Your task to perform on an android device: What is the news today? Image 0: 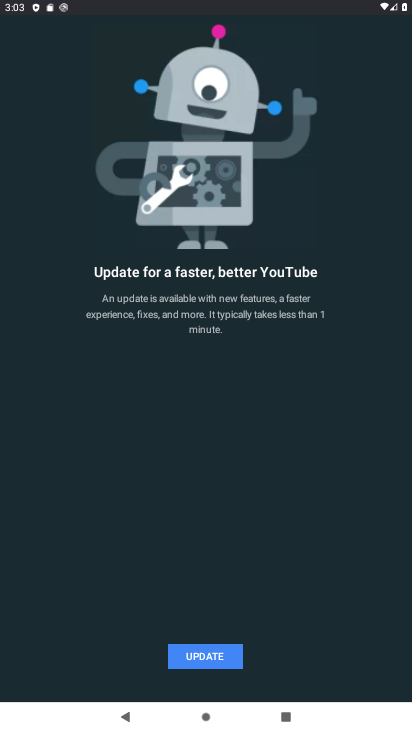
Step 0: press back button
Your task to perform on an android device: What is the news today? Image 1: 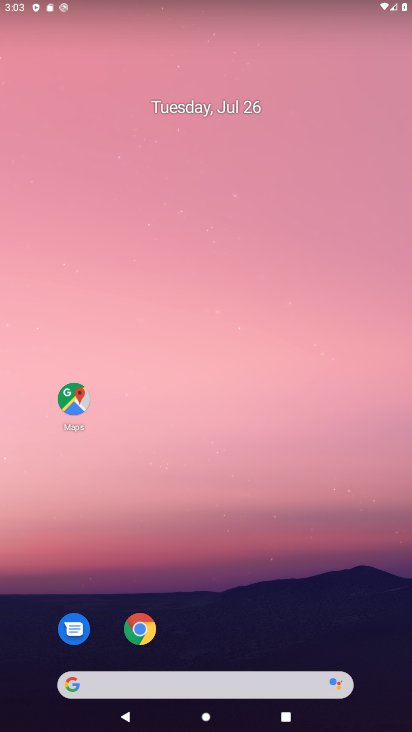
Step 1: drag from (278, 608) to (217, 193)
Your task to perform on an android device: What is the news today? Image 2: 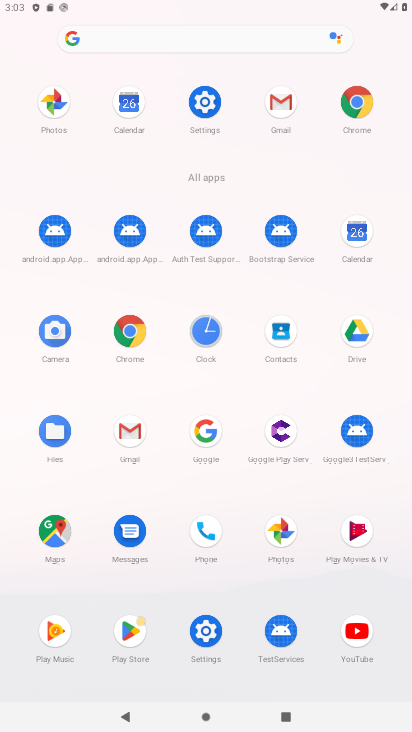
Step 2: click (344, 101)
Your task to perform on an android device: What is the news today? Image 3: 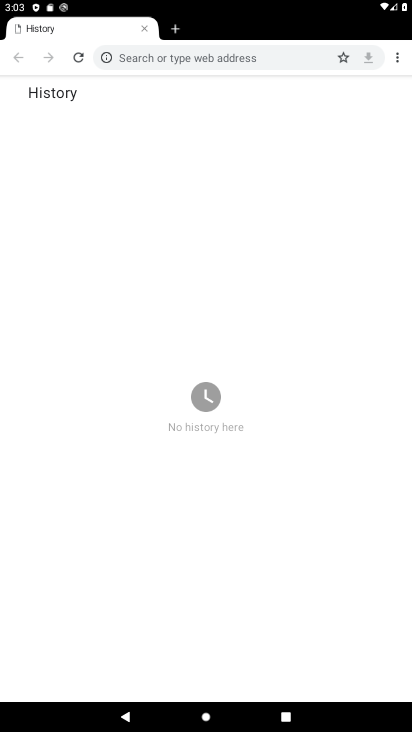
Step 3: click (197, 62)
Your task to perform on an android device: What is the news today? Image 4: 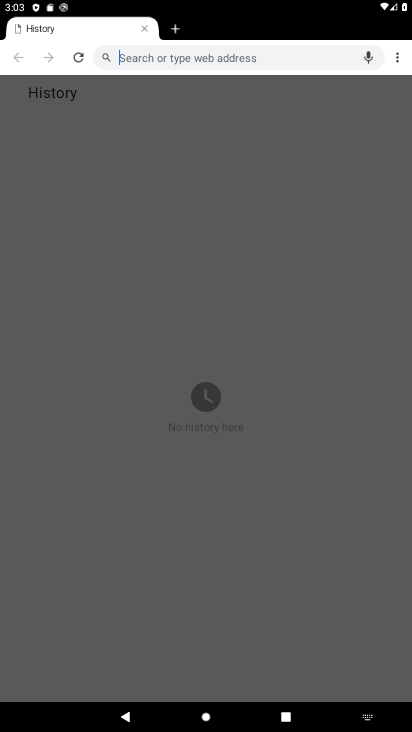
Step 4: type "What is the news today?"
Your task to perform on an android device: What is the news today? Image 5: 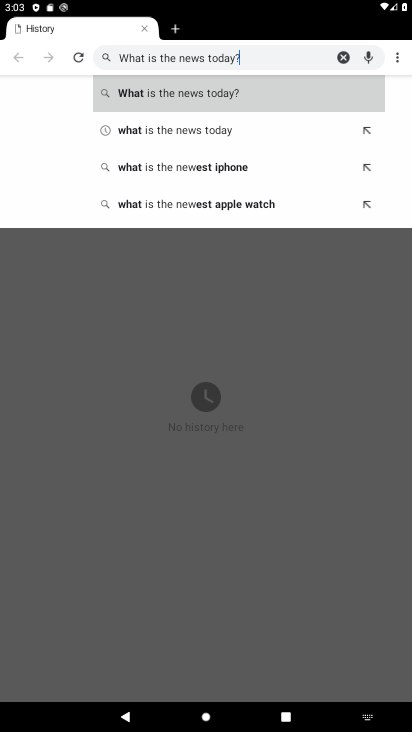
Step 5: type ""
Your task to perform on an android device: What is the news today? Image 6: 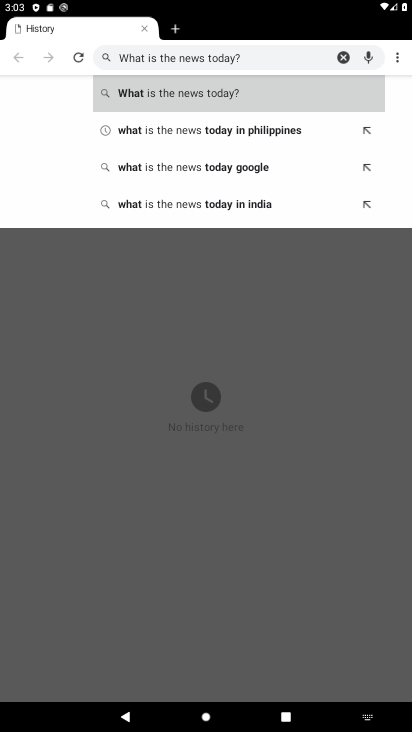
Step 6: click (141, 96)
Your task to perform on an android device: What is the news today? Image 7: 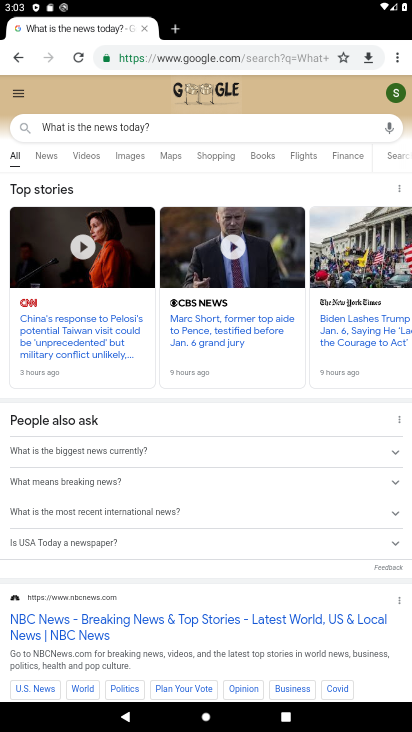
Step 7: task complete